Your task to perform on an android device: Open calendar and show me the first week of next month Image 0: 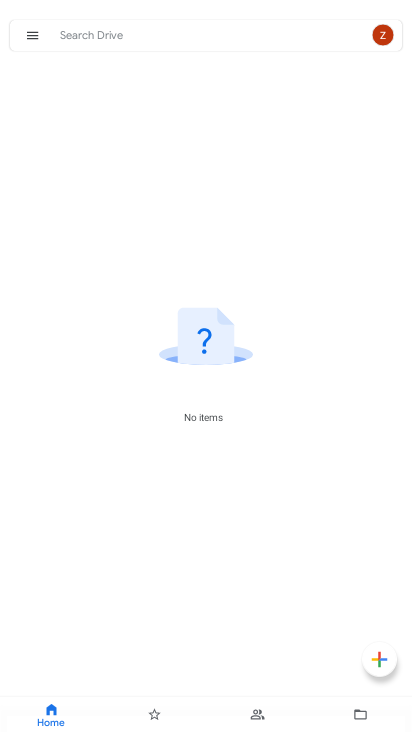
Step 0: press home button
Your task to perform on an android device: Open calendar and show me the first week of next month Image 1: 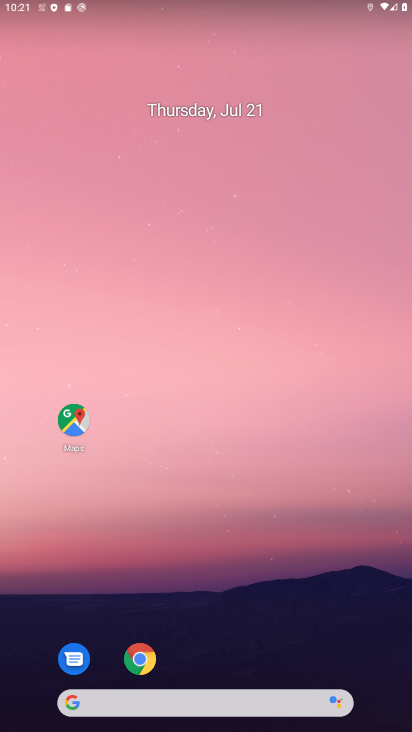
Step 1: drag from (219, 674) to (177, 49)
Your task to perform on an android device: Open calendar and show me the first week of next month Image 2: 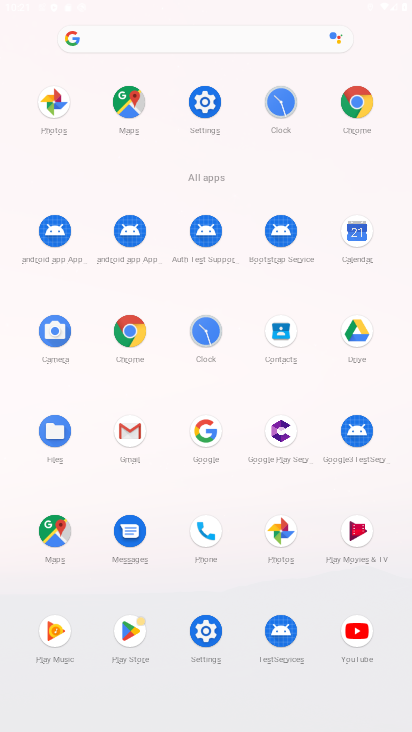
Step 2: click (360, 249)
Your task to perform on an android device: Open calendar and show me the first week of next month Image 3: 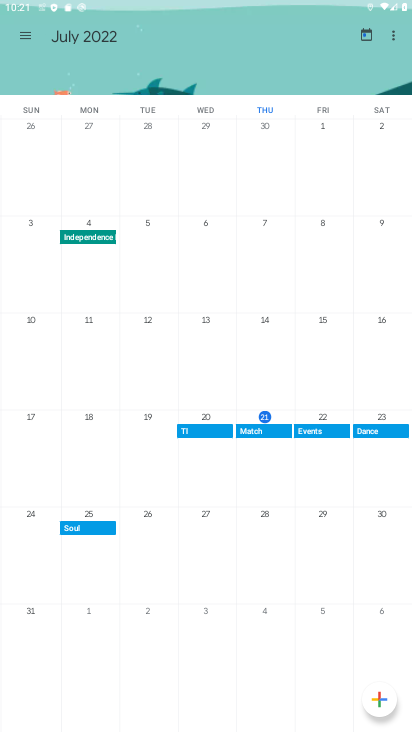
Step 3: drag from (377, 258) to (33, 275)
Your task to perform on an android device: Open calendar and show me the first week of next month Image 4: 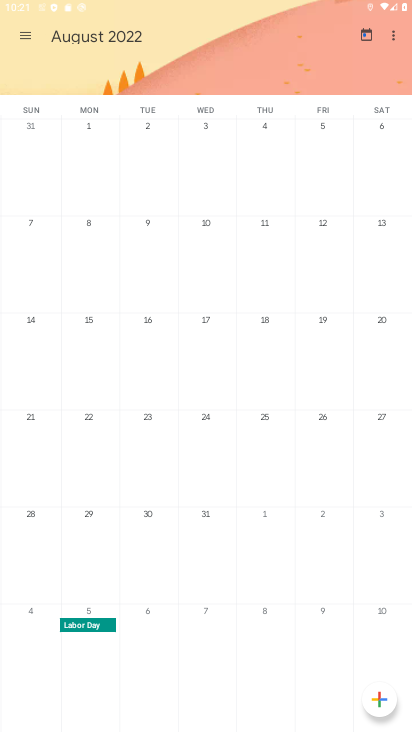
Step 4: click (86, 135)
Your task to perform on an android device: Open calendar and show me the first week of next month Image 5: 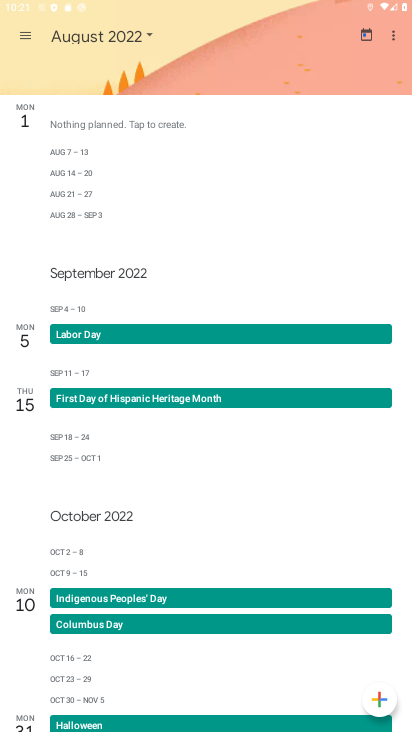
Step 5: task complete